Your task to perform on an android device: check the backup settings in the google photos Image 0: 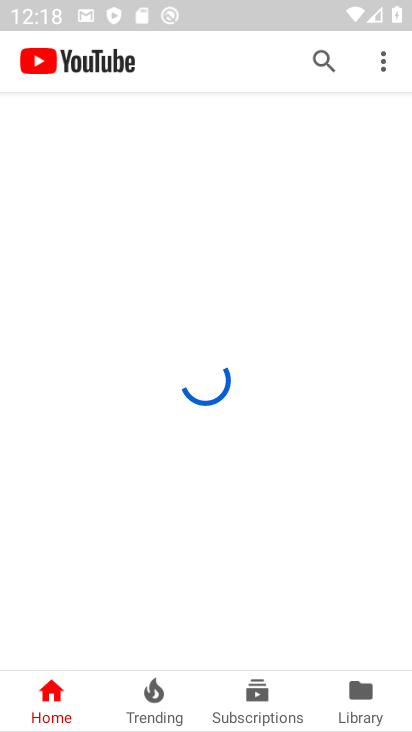
Step 0: press home button
Your task to perform on an android device: check the backup settings in the google photos Image 1: 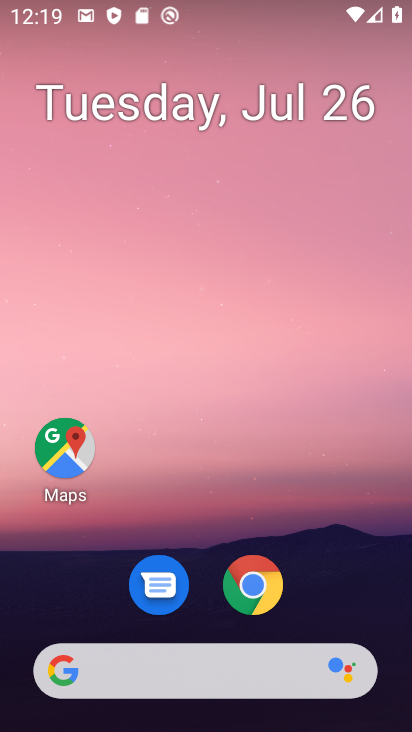
Step 1: drag from (126, 661) to (289, 113)
Your task to perform on an android device: check the backup settings in the google photos Image 2: 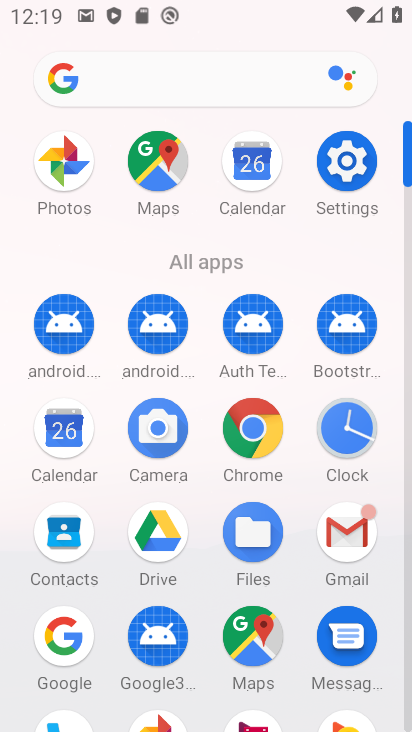
Step 2: click (69, 162)
Your task to perform on an android device: check the backup settings in the google photos Image 3: 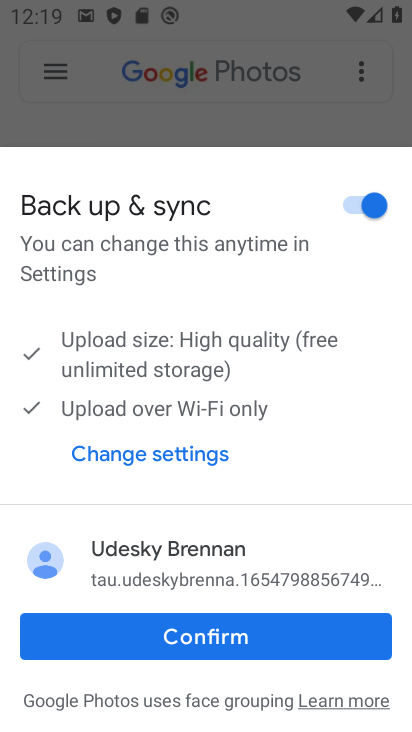
Step 3: click (181, 631)
Your task to perform on an android device: check the backup settings in the google photos Image 4: 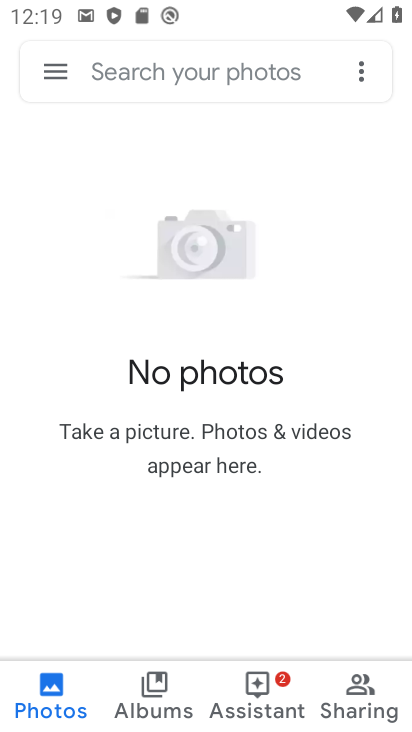
Step 4: click (54, 71)
Your task to perform on an android device: check the backup settings in the google photos Image 5: 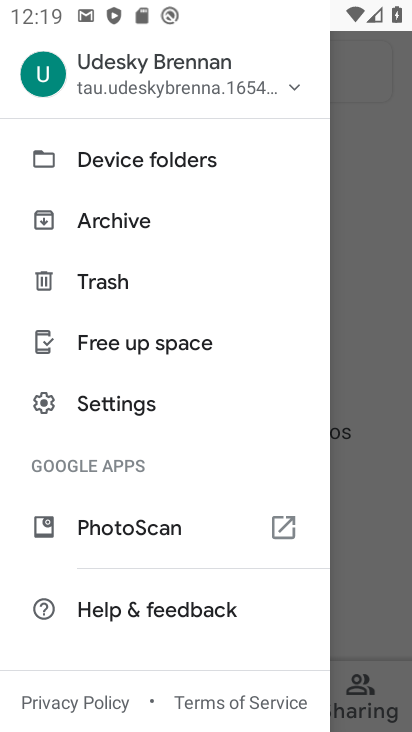
Step 5: click (115, 403)
Your task to perform on an android device: check the backup settings in the google photos Image 6: 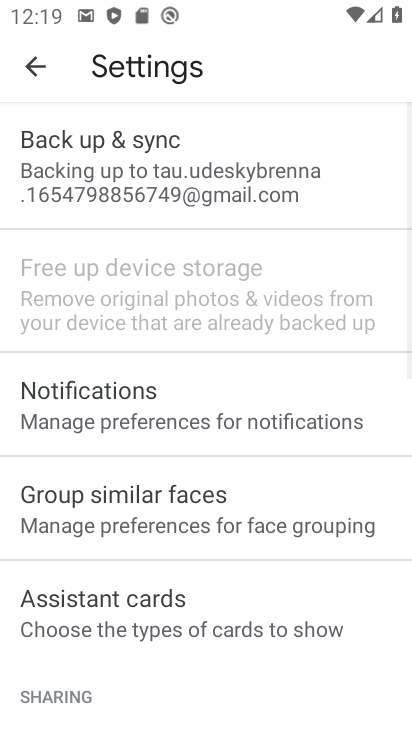
Step 6: click (173, 207)
Your task to perform on an android device: check the backup settings in the google photos Image 7: 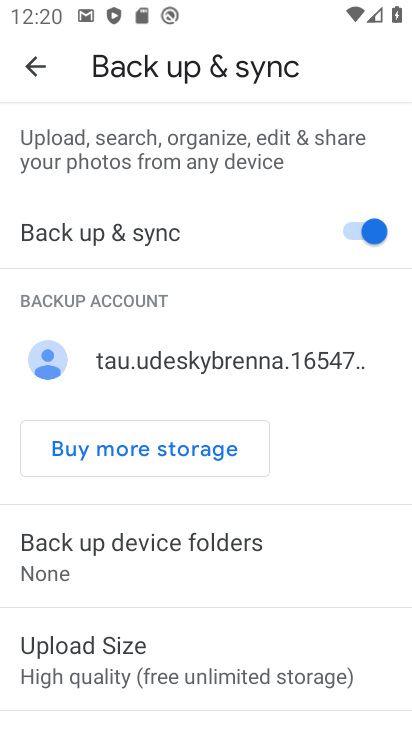
Step 7: task complete